Your task to perform on an android device: turn smart compose on in the gmail app Image 0: 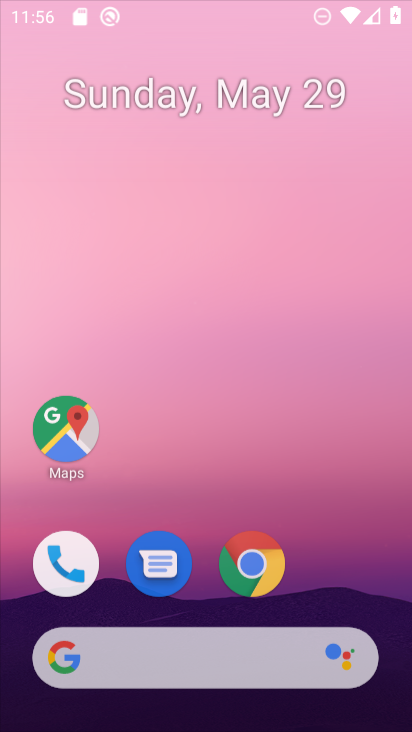
Step 0: drag from (373, 609) to (371, 242)
Your task to perform on an android device: turn smart compose on in the gmail app Image 1: 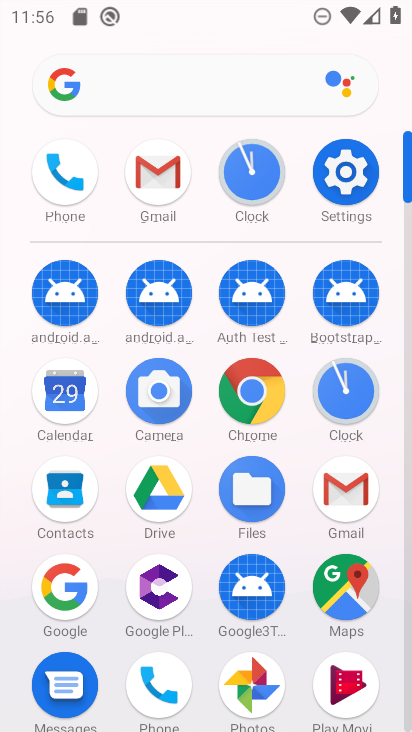
Step 1: click (144, 180)
Your task to perform on an android device: turn smart compose on in the gmail app Image 2: 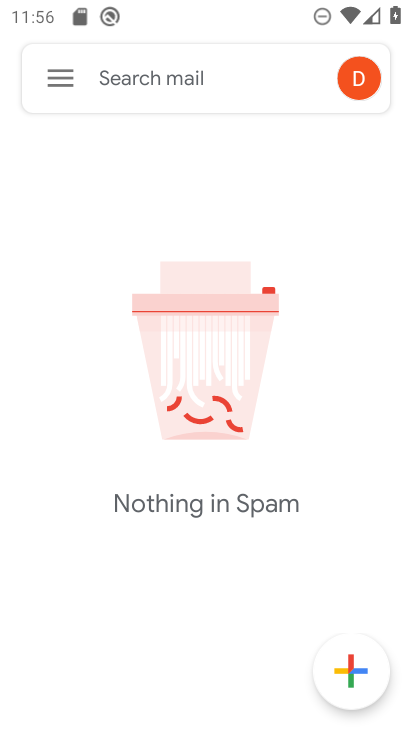
Step 2: click (62, 75)
Your task to perform on an android device: turn smart compose on in the gmail app Image 3: 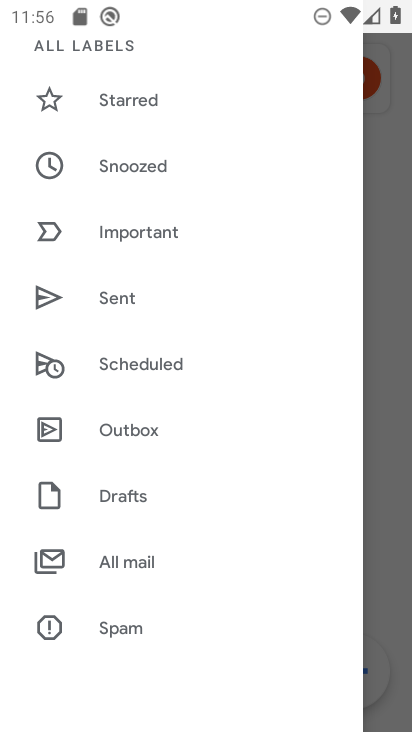
Step 3: drag from (216, 655) to (282, 16)
Your task to perform on an android device: turn smart compose on in the gmail app Image 4: 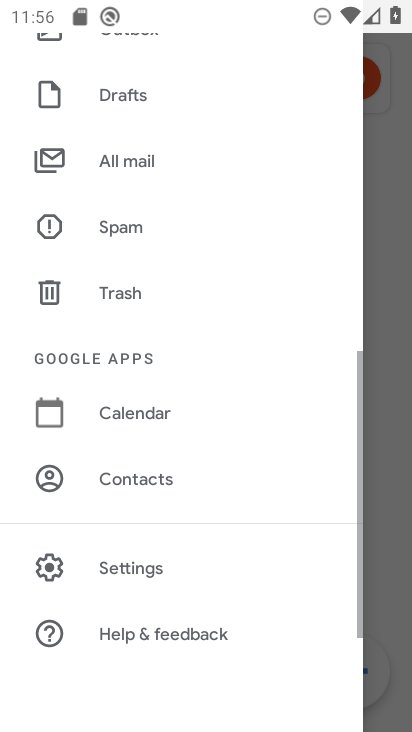
Step 4: click (142, 549)
Your task to perform on an android device: turn smart compose on in the gmail app Image 5: 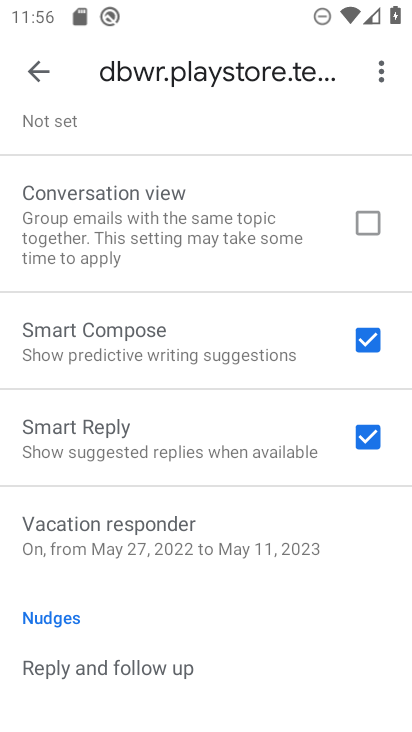
Step 5: task complete